Your task to perform on an android device: Open my contact list Image 0: 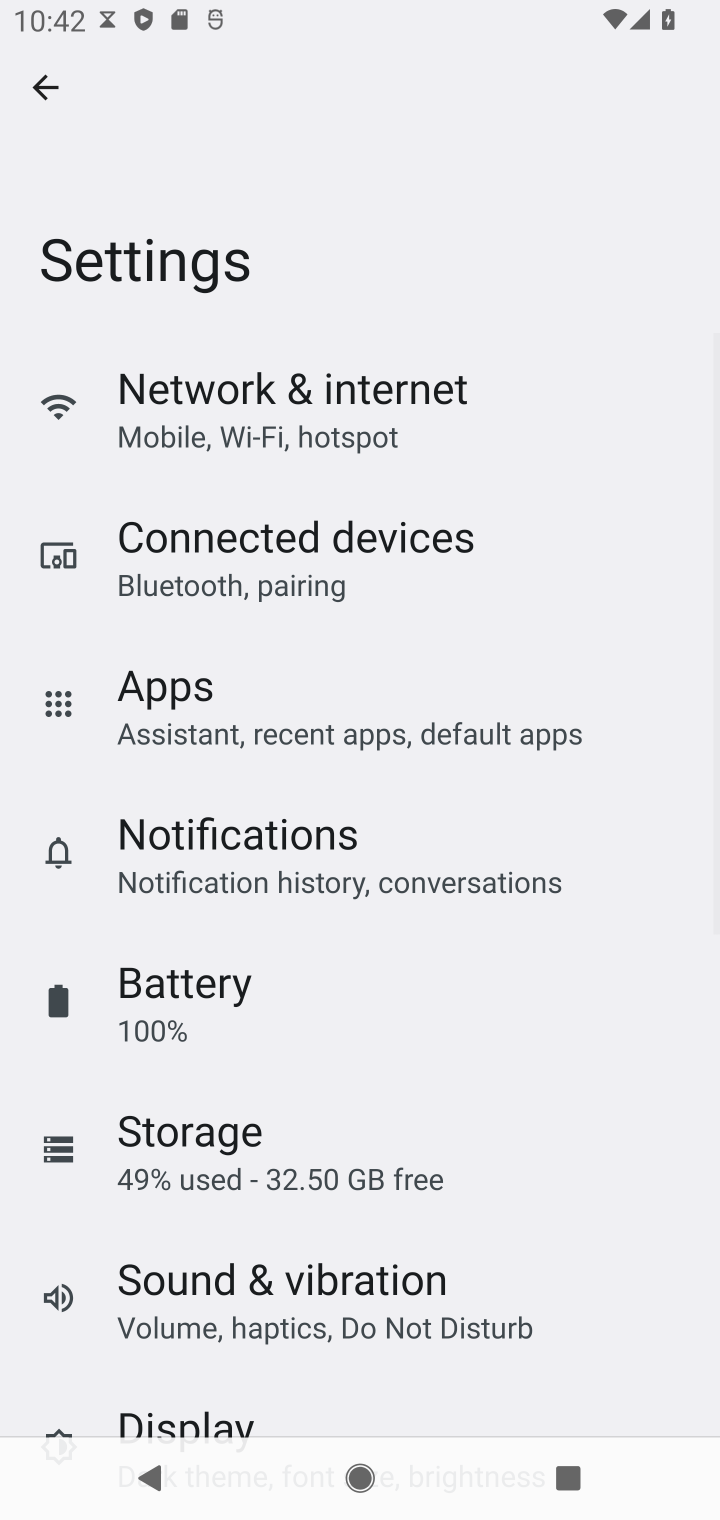
Step 0: press back button
Your task to perform on an android device: Open my contact list Image 1: 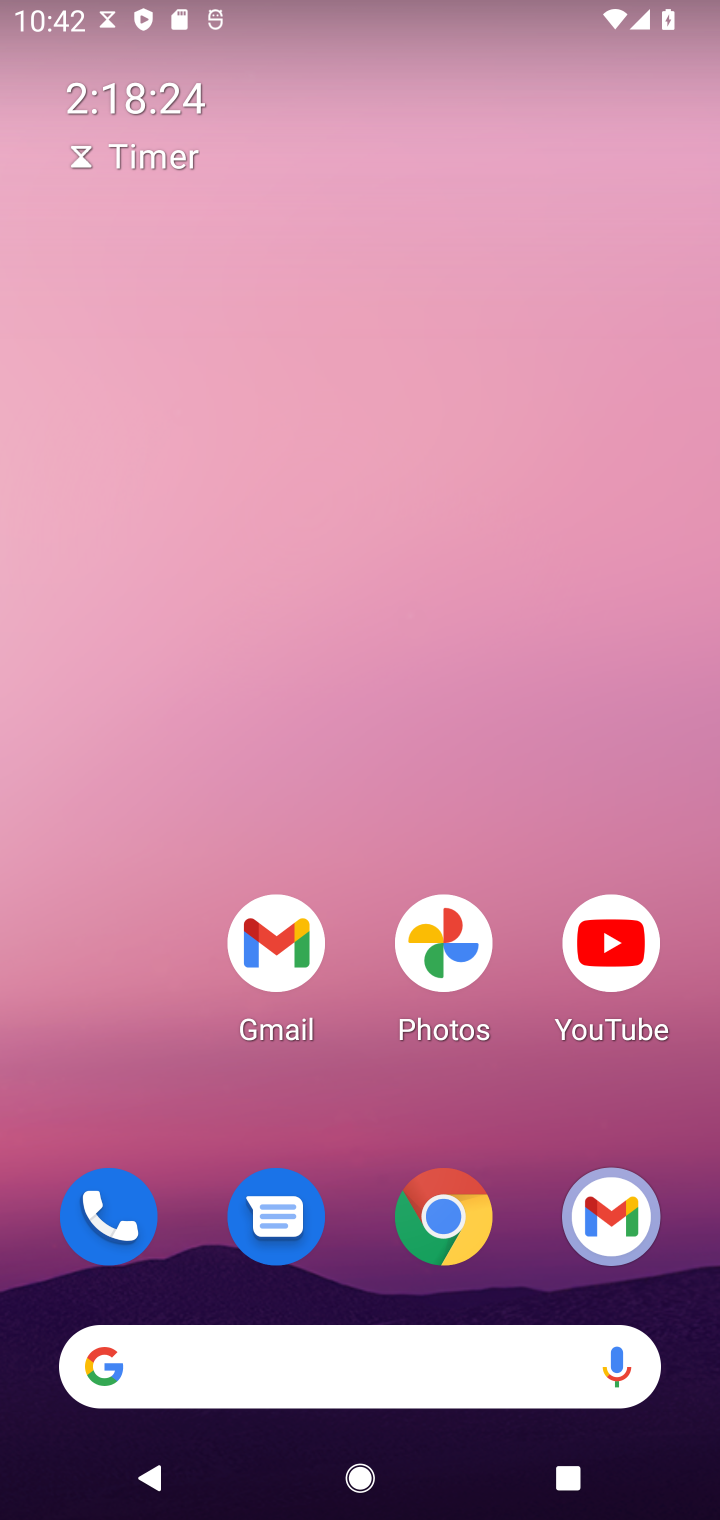
Step 1: drag from (329, 1262) to (403, 259)
Your task to perform on an android device: Open my contact list Image 2: 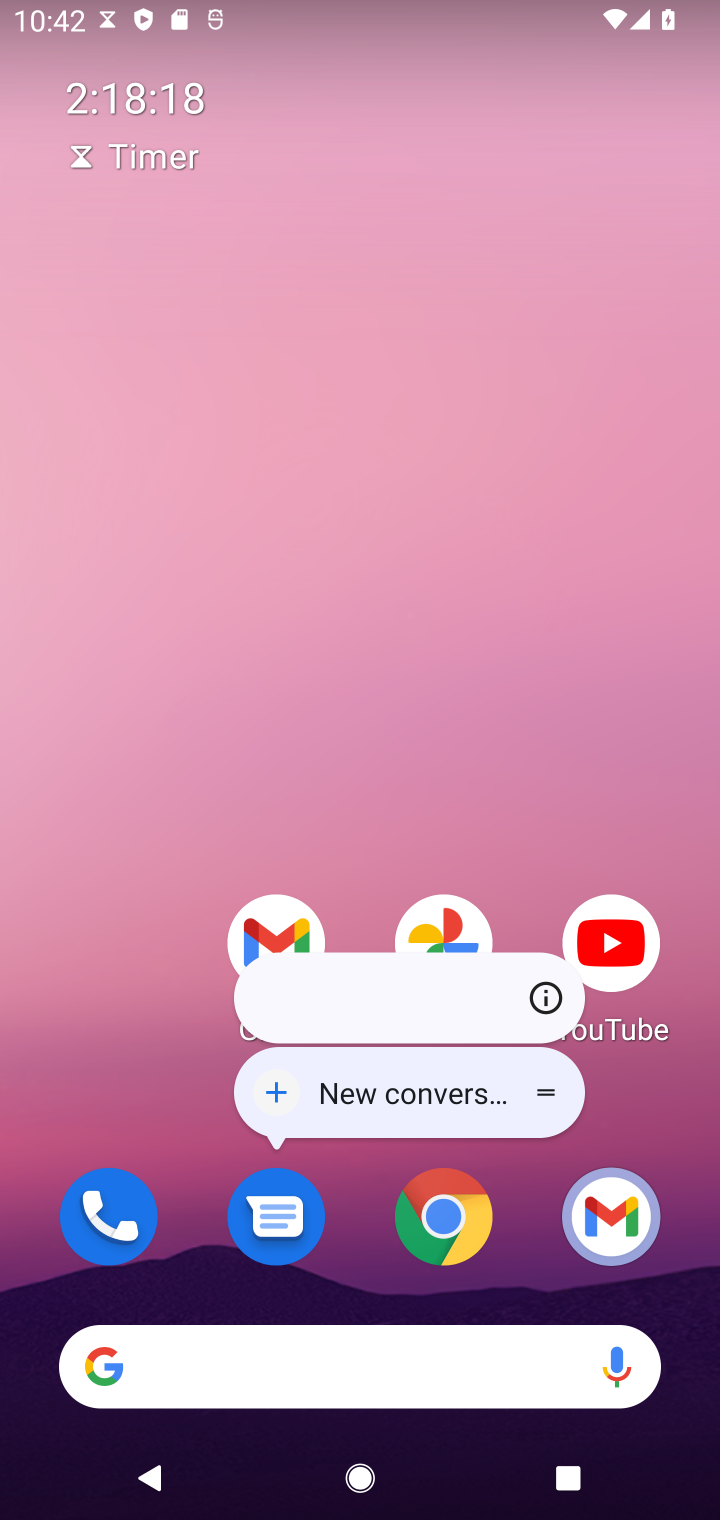
Step 2: click (358, 1307)
Your task to perform on an android device: Open my contact list Image 3: 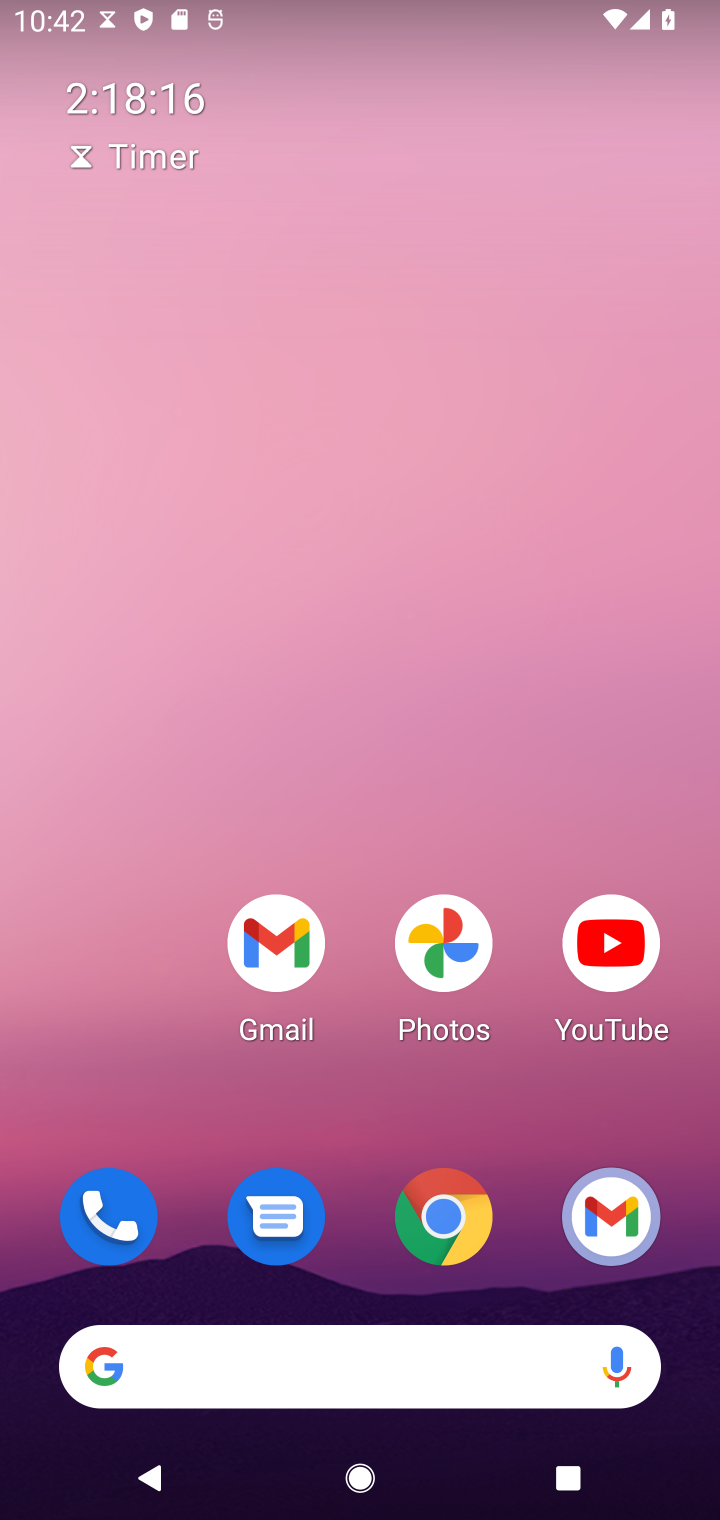
Step 3: drag from (358, 1227) to (289, 33)
Your task to perform on an android device: Open my contact list Image 4: 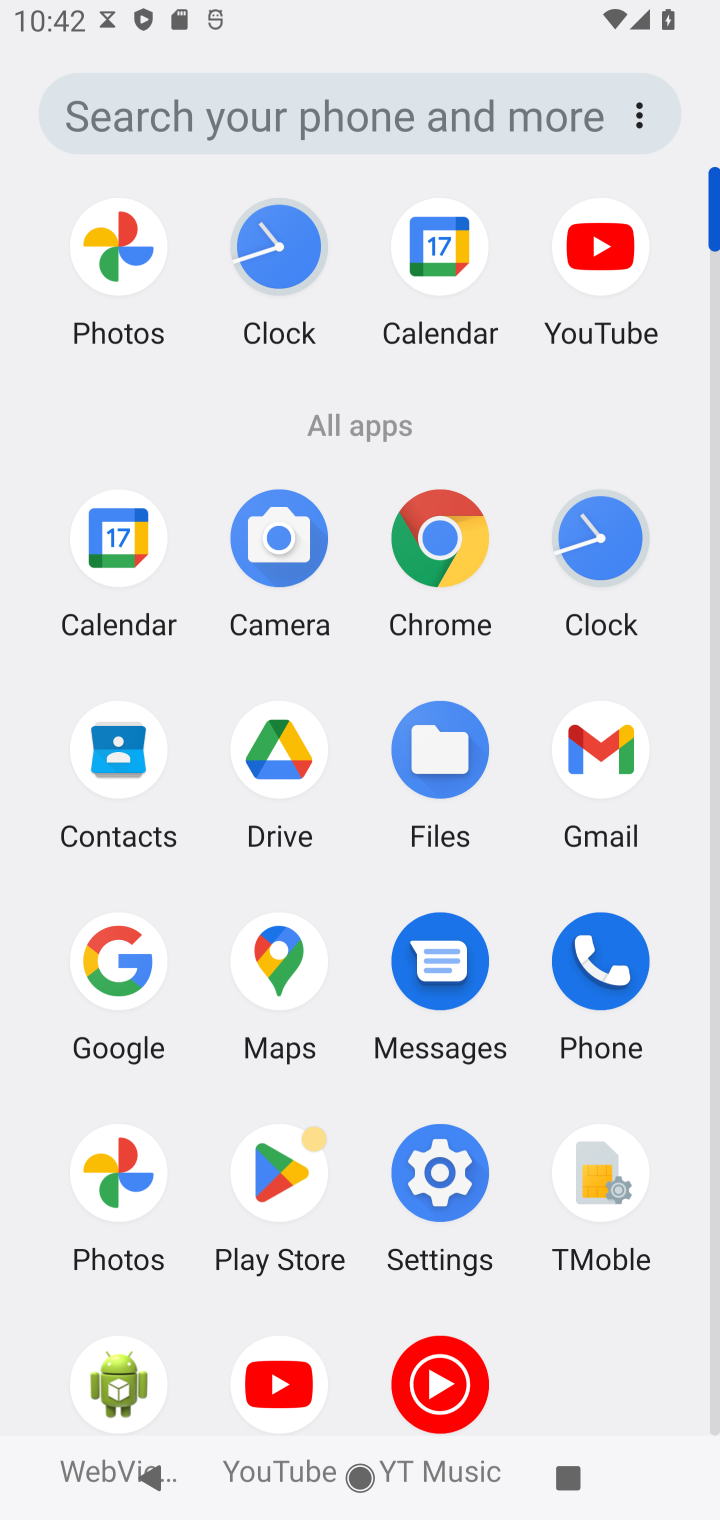
Step 4: click (111, 746)
Your task to perform on an android device: Open my contact list Image 5: 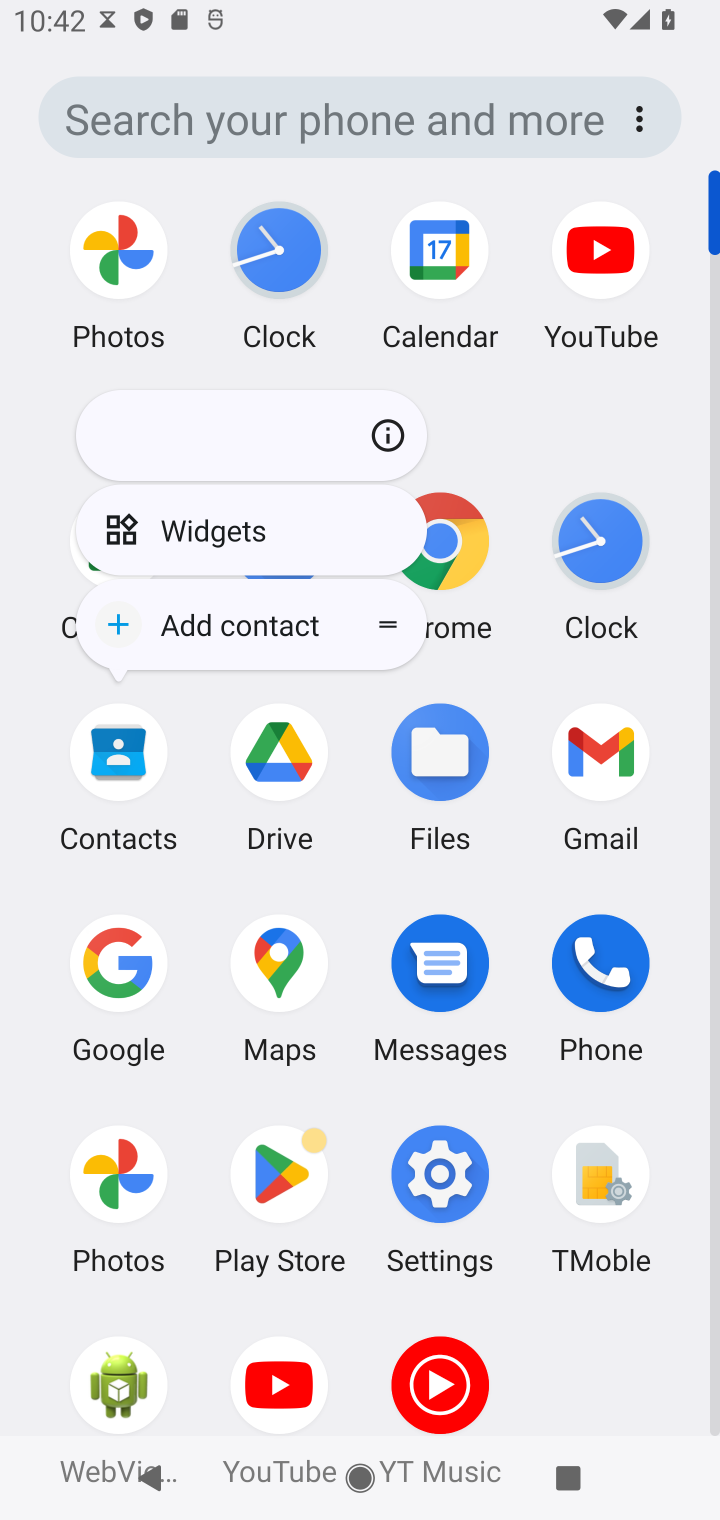
Step 5: click (109, 777)
Your task to perform on an android device: Open my contact list Image 6: 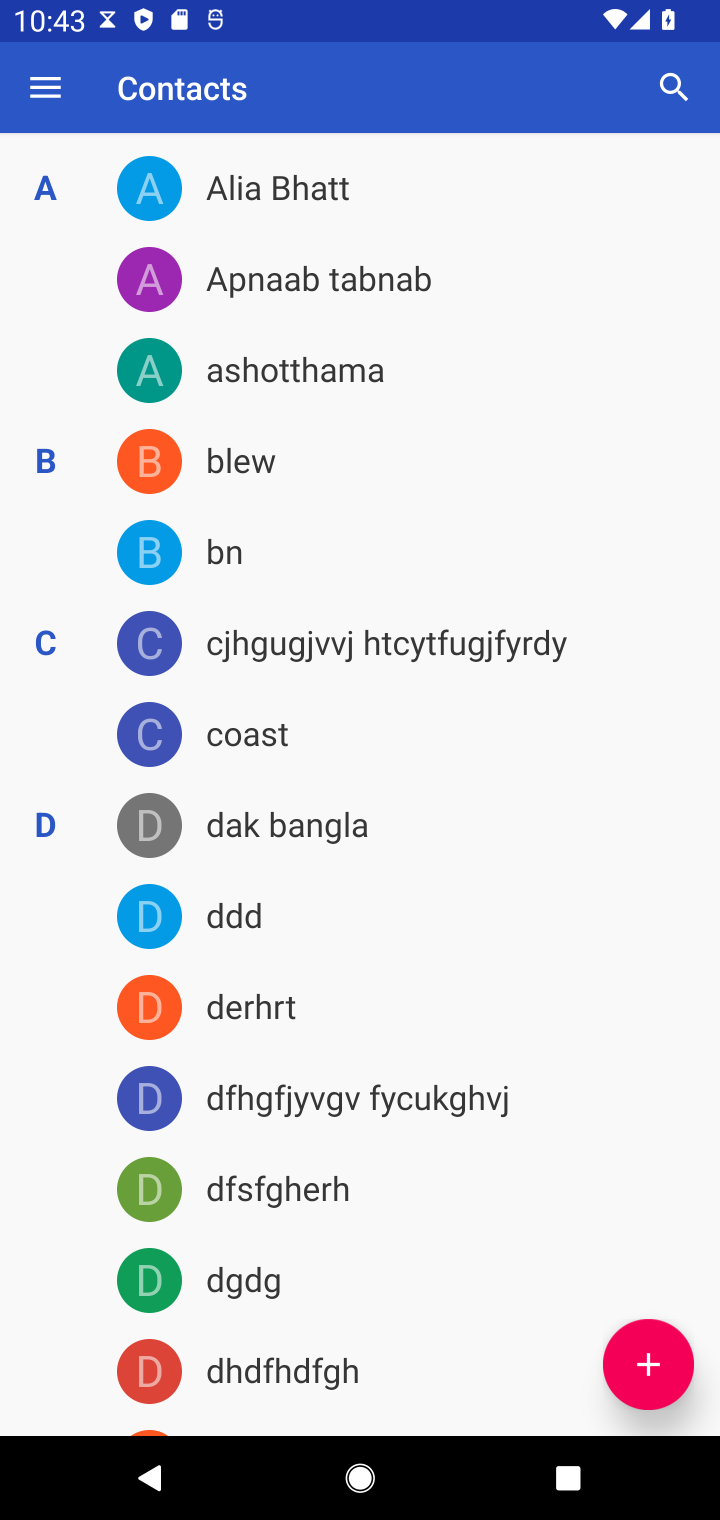
Step 6: task complete